Your task to perform on an android device: Open wifi settings Image 0: 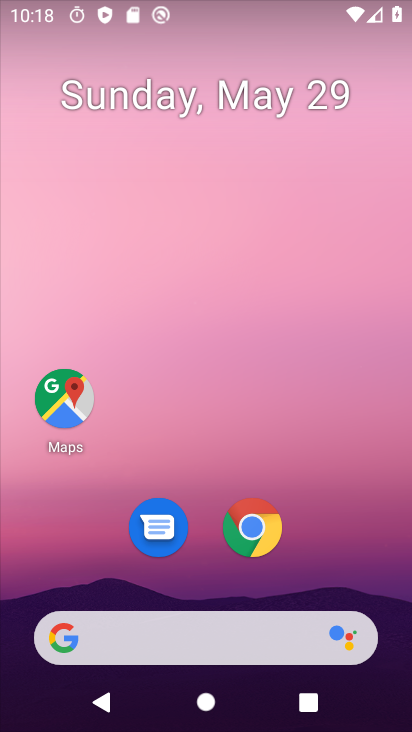
Step 0: drag from (322, 495) to (271, 67)
Your task to perform on an android device: Open wifi settings Image 1: 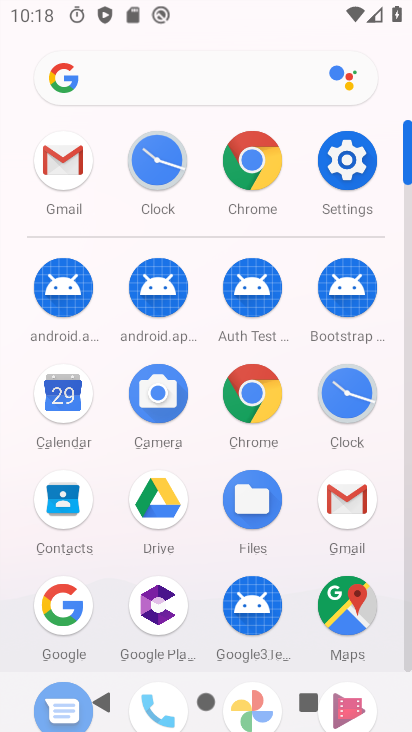
Step 1: click (349, 150)
Your task to perform on an android device: Open wifi settings Image 2: 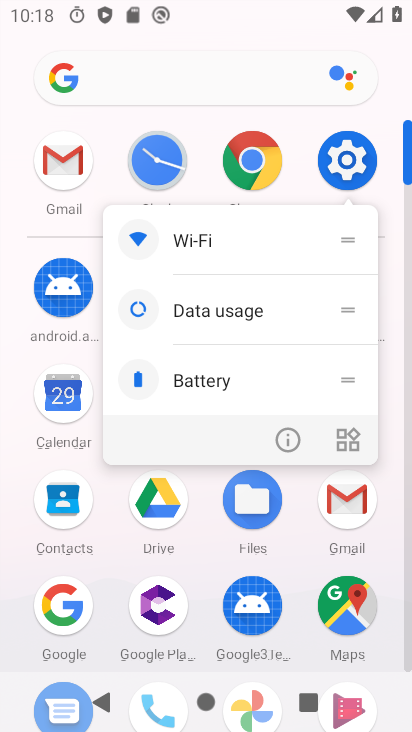
Step 2: click (355, 152)
Your task to perform on an android device: Open wifi settings Image 3: 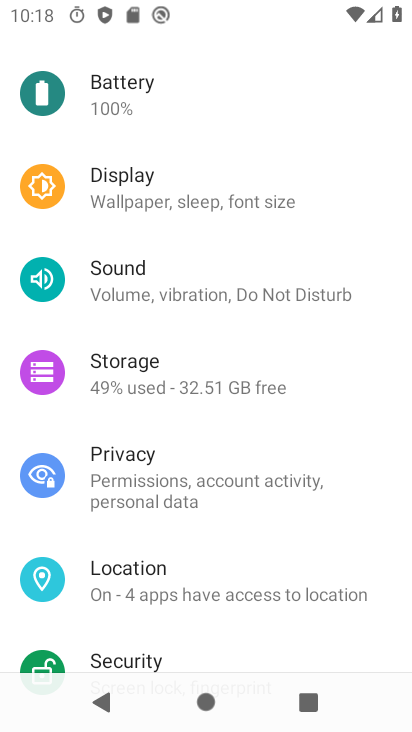
Step 3: drag from (234, 137) to (149, 539)
Your task to perform on an android device: Open wifi settings Image 4: 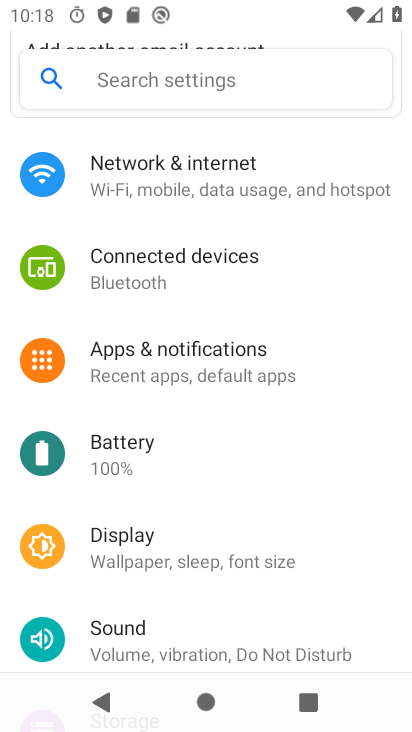
Step 4: click (162, 165)
Your task to perform on an android device: Open wifi settings Image 5: 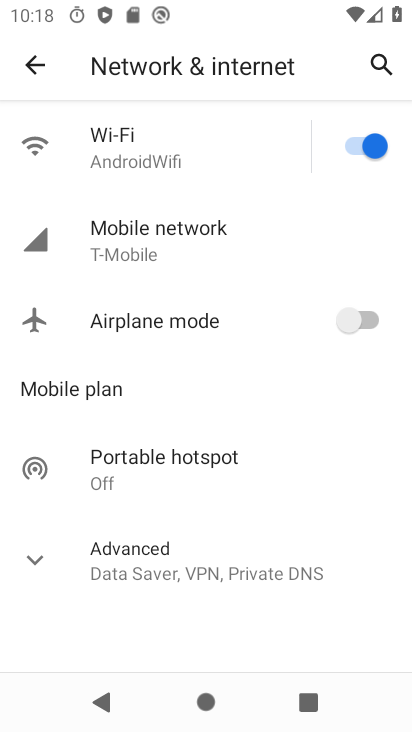
Step 5: click (162, 165)
Your task to perform on an android device: Open wifi settings Image 6: 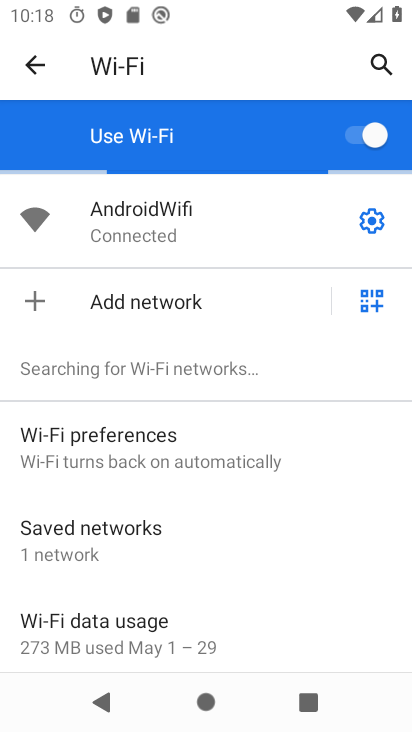
Step 6: click (382, 216)
Your task to perform on an android device: Open wifi settings Image 7: 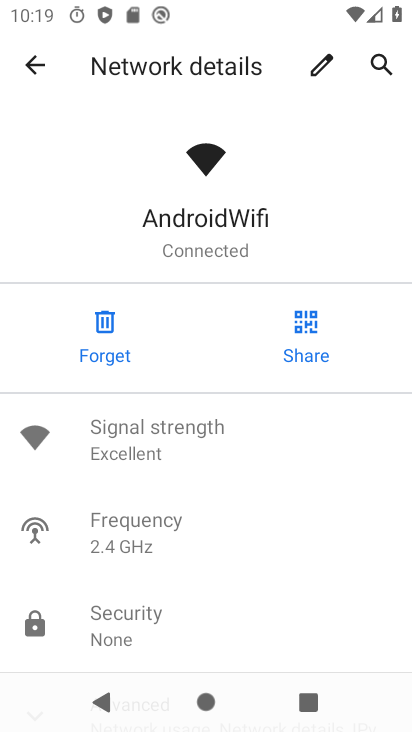
Step 7: task complete